Your task to perform on an android device: refresh tabs in the chrome app Image 0: 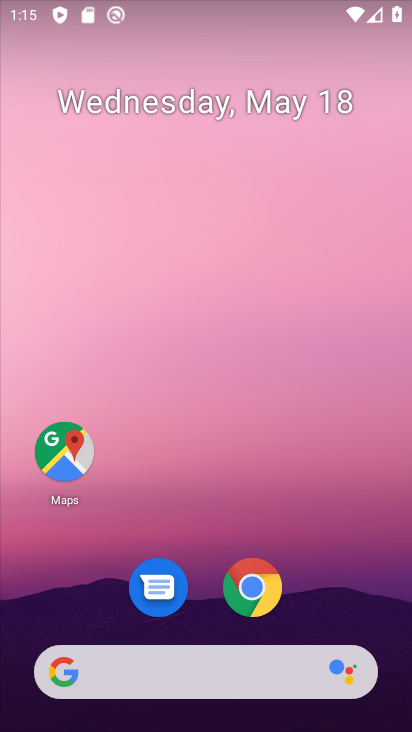
Step 0: click (247, 593)
Your task to perform on an android device: refresh tabs in the chrome app Image 1: 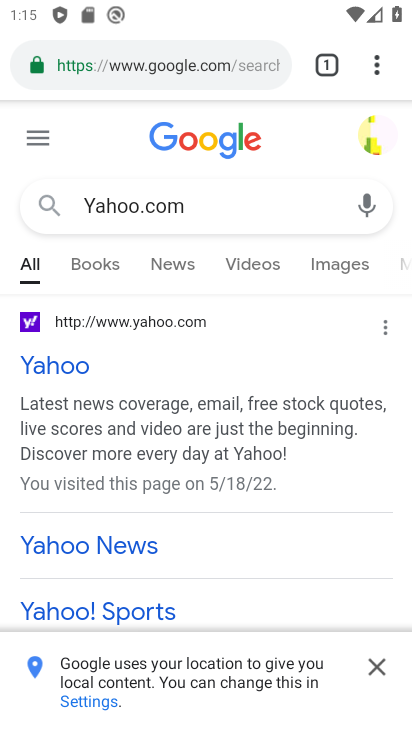
Step 1: click (371, 62)
Your task to perform on an android device: refresh tabs in the chrome app Image 2: 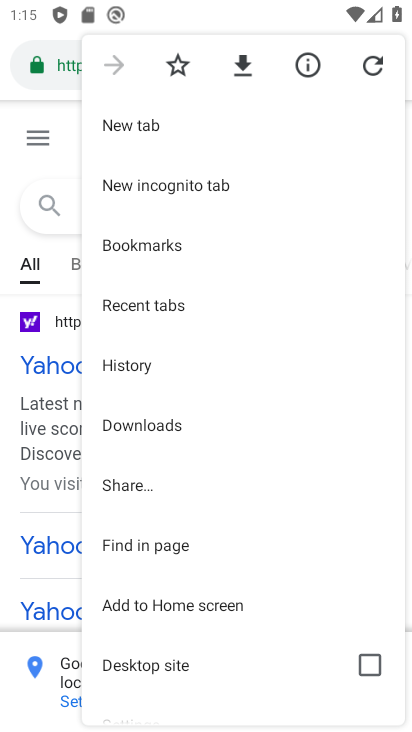
Step 2: click (363, 58)
Your task to perform on an android device: refresh tabs in the chrome app Image 3: 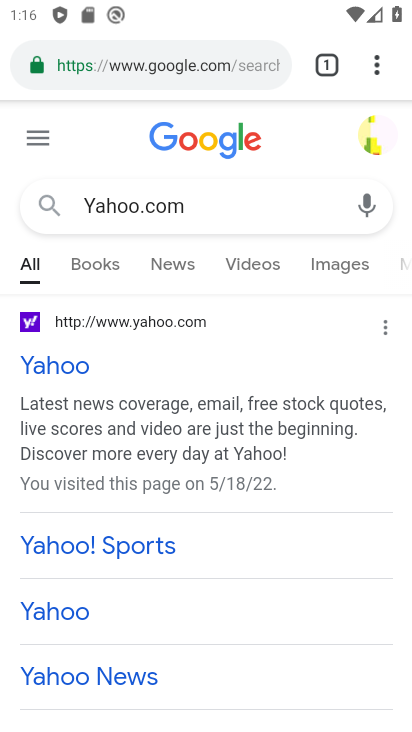
Step 3: click (373, 61)
Your task to perform on an android device: refresh tabs in the chrome app Image 4: 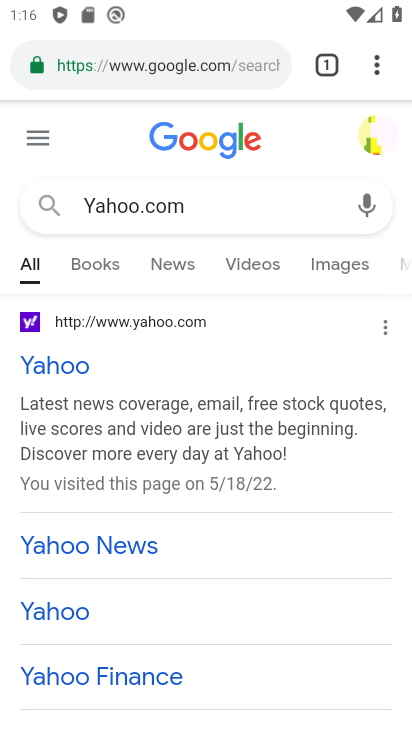
Step 4: click (378, 58)
Your task to perform on an android device: refresh tabs in the chrome app Image 5: 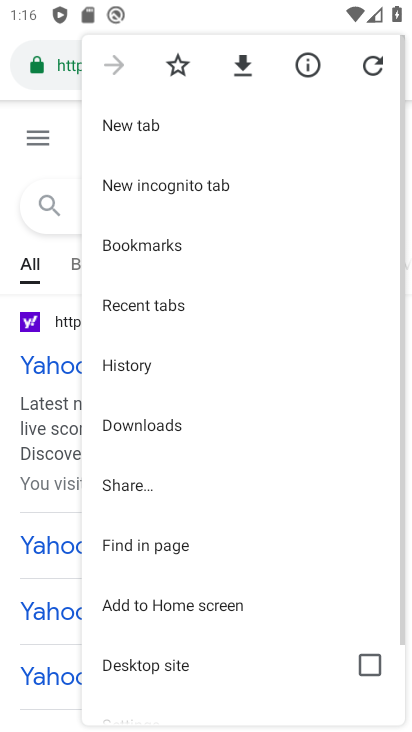
Step 5: click (378, 58)
Your task to perform on an android device: refresh tabs in the chrome app Image 6: 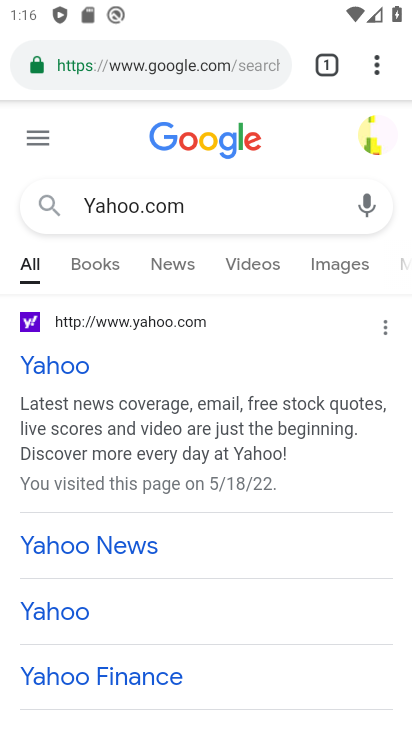
Step 6: task complete